Your task to perform on an android device: What's on my calendar today? Image 0: 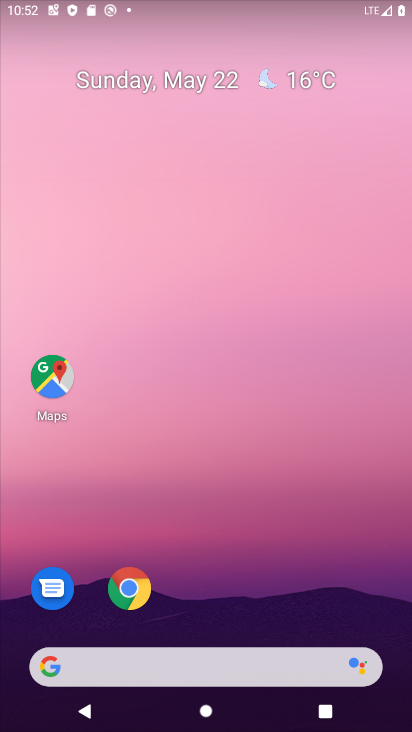
Step 0: drag from (202, 607) to (198, 185)
Your task to perform on an android device: What's on my calendar today? Image 1: 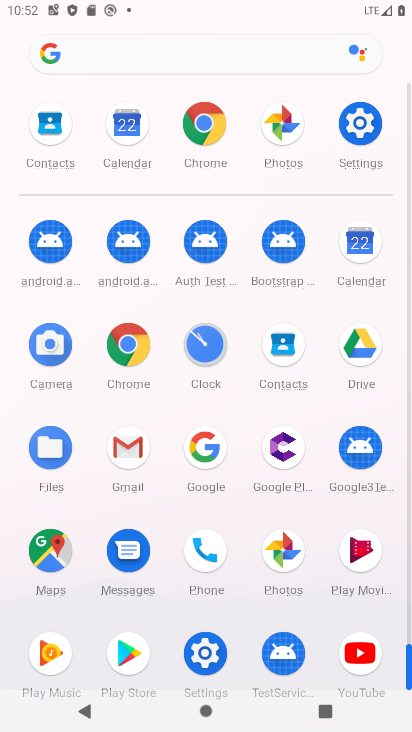
Step 1: click (378, 232)
Your task to perform on an android device: What's on my calendar today? Image 2: 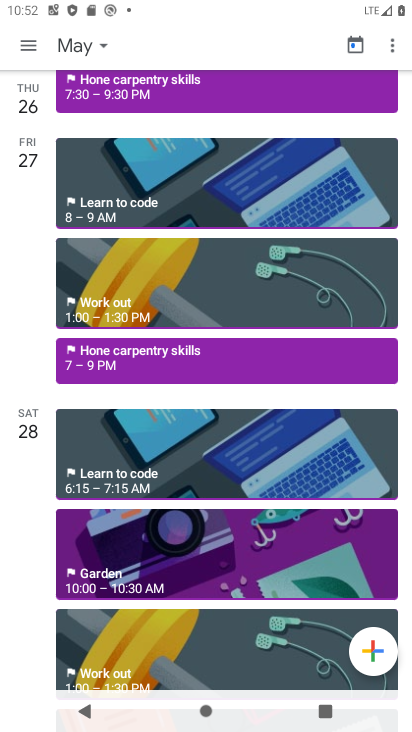
Step 2: click (101, 40)
Your task to perform on an android device: What's on my calendar today? Image 3: 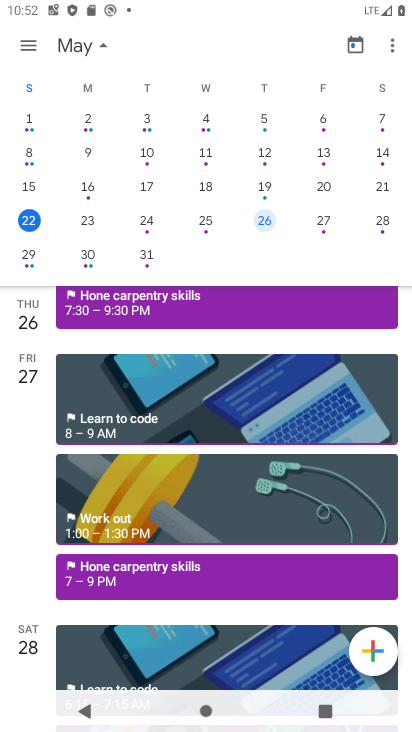
Step 3: task complete